Your task to perform on an android device: Go to CNN.com Image 0: 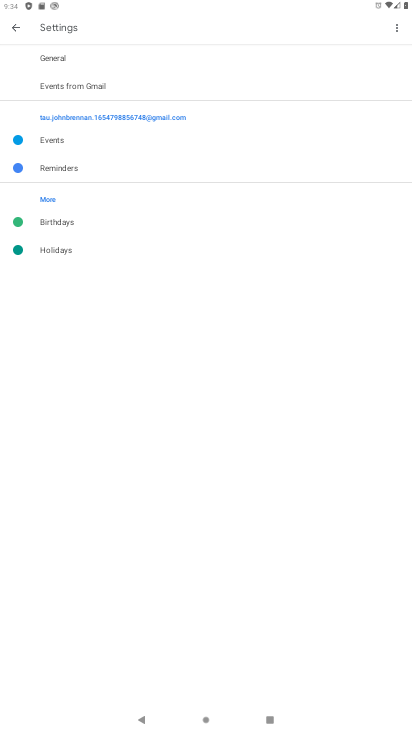
Step 0: press home button
Your task to perform on an android device: Go to CNN.com Image 1: 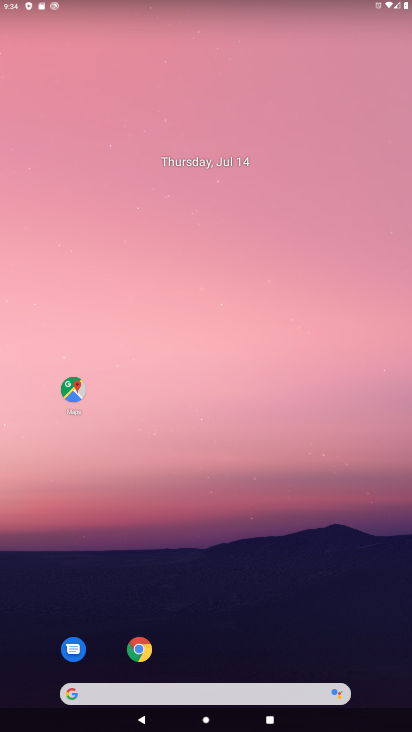
Step 1: click (189, 684)
Your task to perform on an android device: Go to CNN.com Image 2: 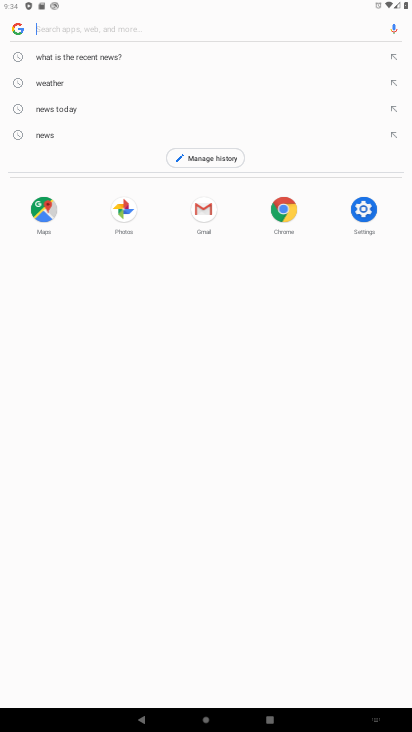
Step 2: type "cnn.com"
Your task to perform on an android device: Go to CNN.com Image 3: 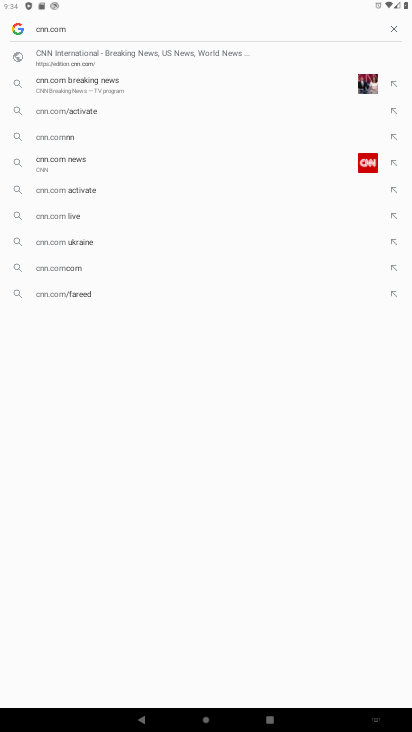
Step 3: click (230, 46)
Your task to perform on an android device: Go to CNN.com Image 4: 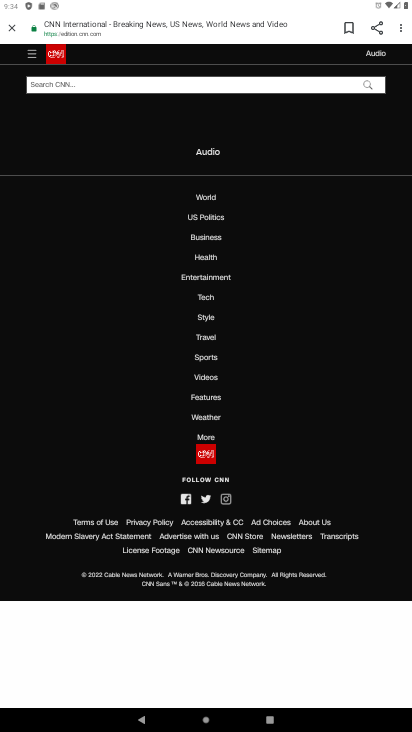
Step 4: task complete